Your task to perform on an android device: Open Google Chrome Image 0: 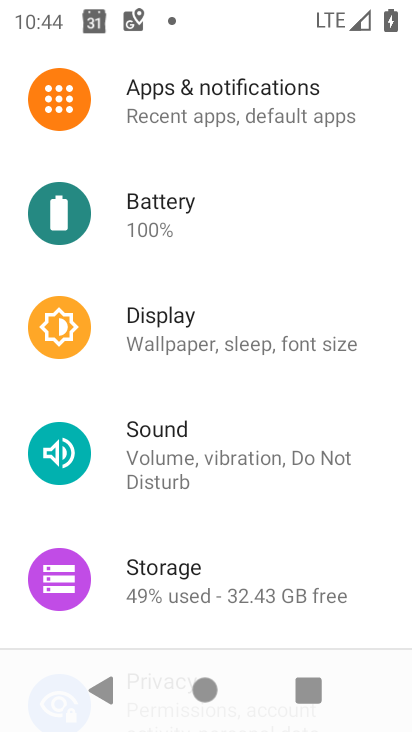
Step 0: press home button
Your task to perform on an android device: Open Google Chrome Image 1: 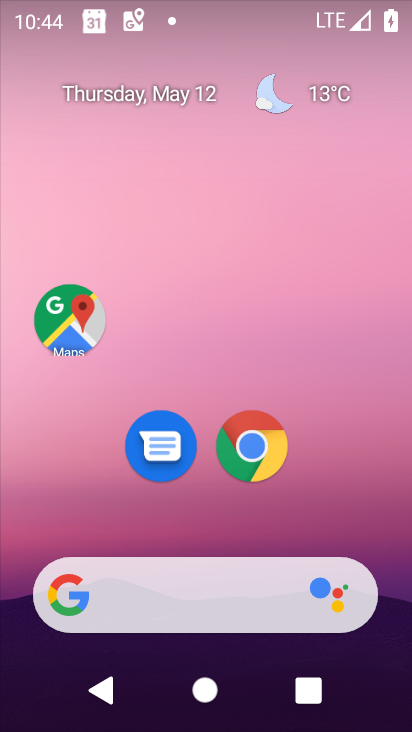
Step 1: click (249, 454)
Your task to perform on an android device: Open Google Chrome Image 2: 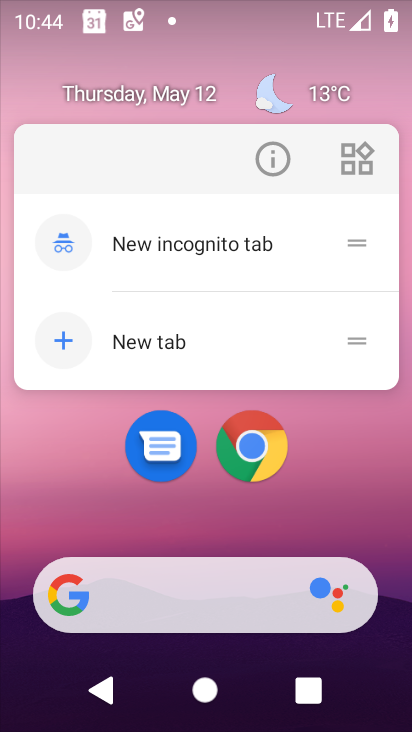
Step 2: click (251, 448)
Your task to perform on an android device: Open Google Chrome Image 3: 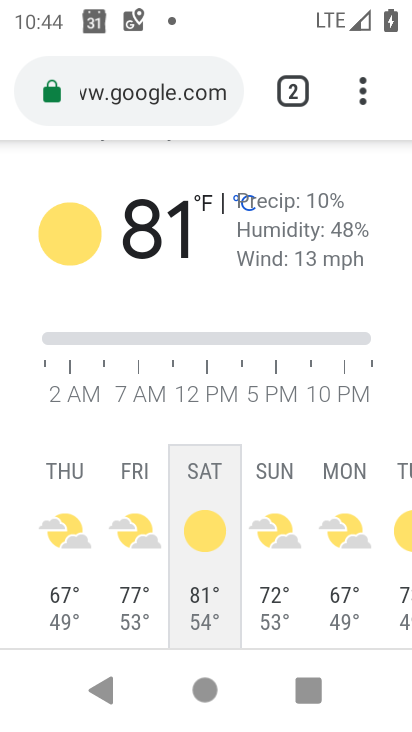
Step 3: task complete